Your task to perform on an android device: Go to Yahoo.com Image 0: 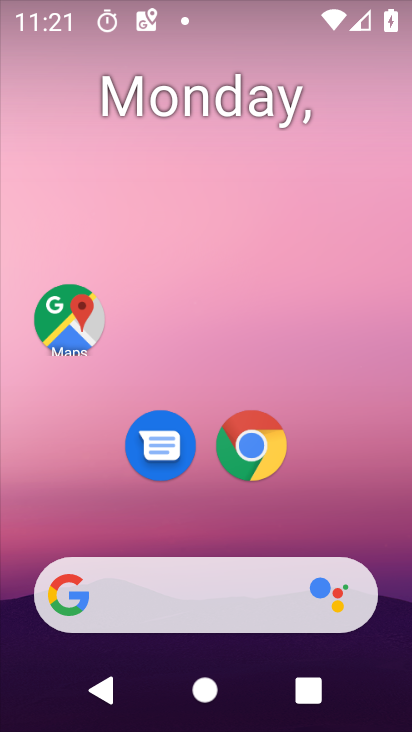
Step 0: click (243, 437)
Your task to perform on an android device: Go to Yahoo.com Image 1: 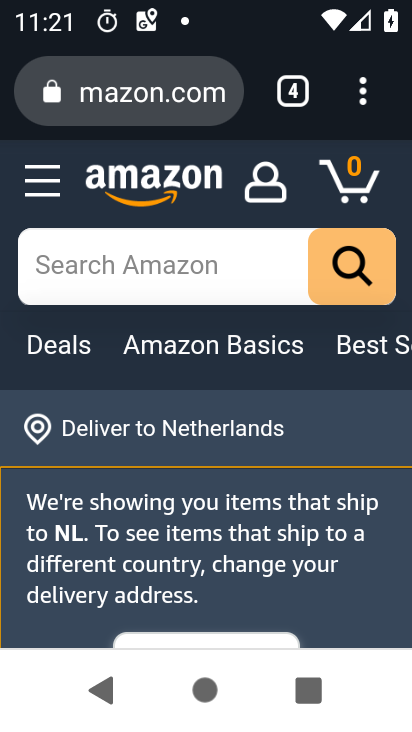
Step 1: click (293, 80)
Your task to perform on an android device: Go to Yahoo.com Image 2: 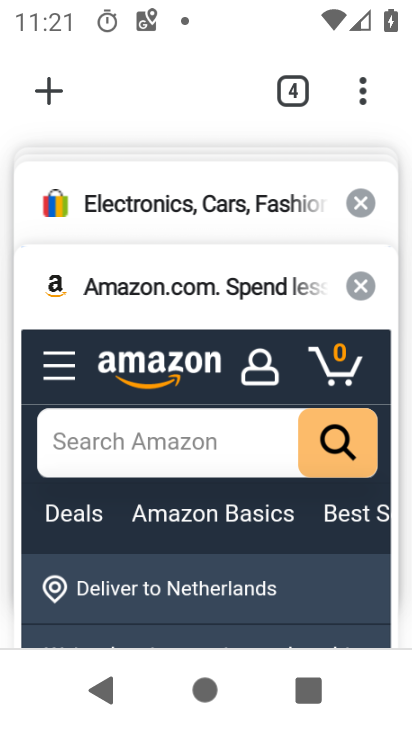
Step 2: click (53, 84)
Your task to perform on an android device: Go to Yahoo.com Image 3: 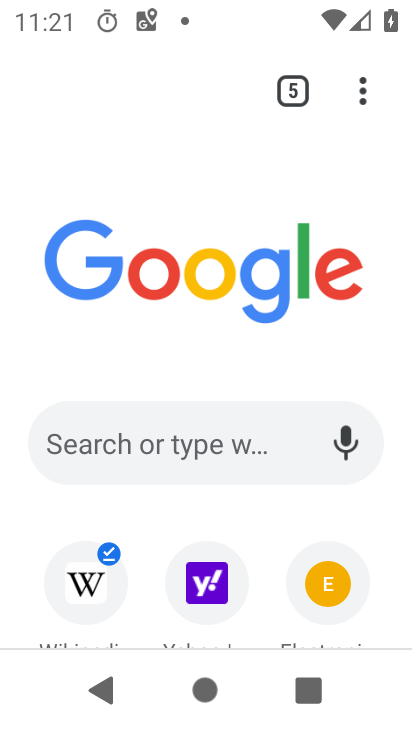
Step 3: click (194, 590)
Your task to perform on an android device: Go to Yahoo.com Image 4: 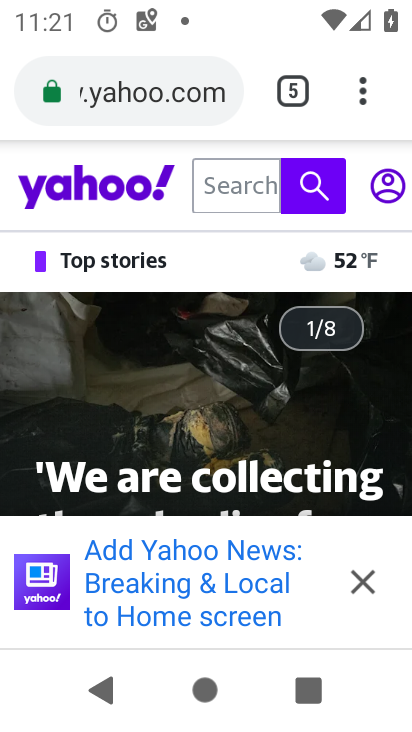
Step 4: task complete